Your task to perform on an android device: Show me the alarms in the clock app Image 0: 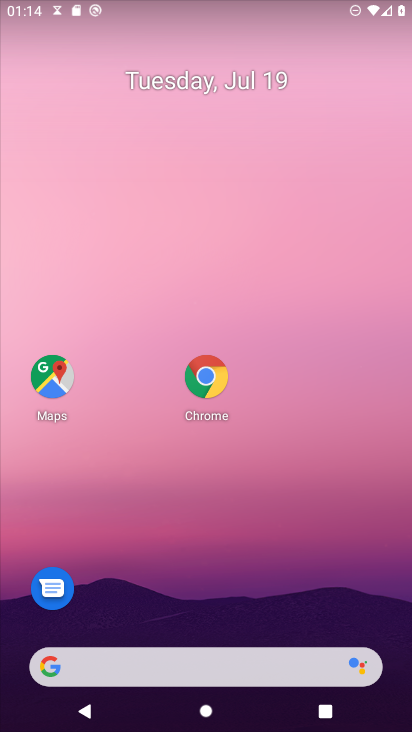
Step 0: press home button
Your task to perform on an android device: Show me the alarms in the clock app Image 1: 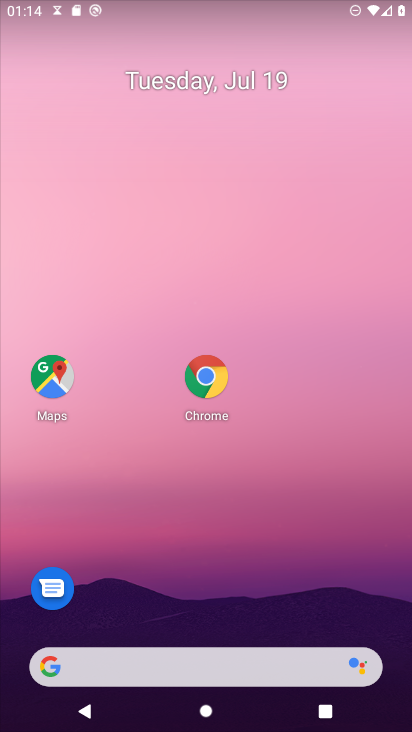
Step 1: drag from (314, 539) to (266, 0)
Your task to perform on an android device: Show me the alarms in the clock app Image 2: 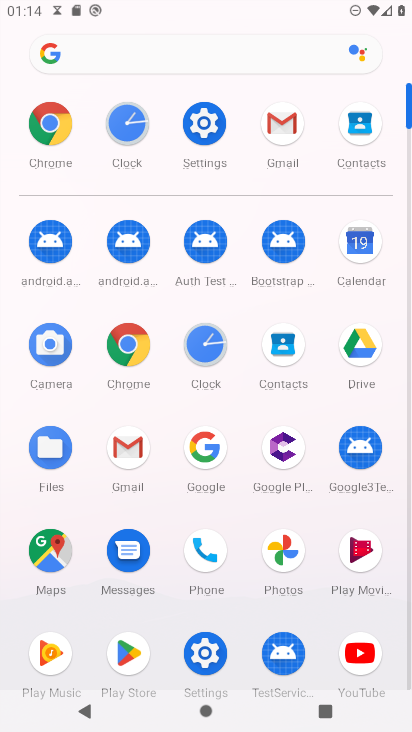
Step 2: click (119, 115)
Your task to perform on an android device: Show me the alarms in the clock app Image 3: 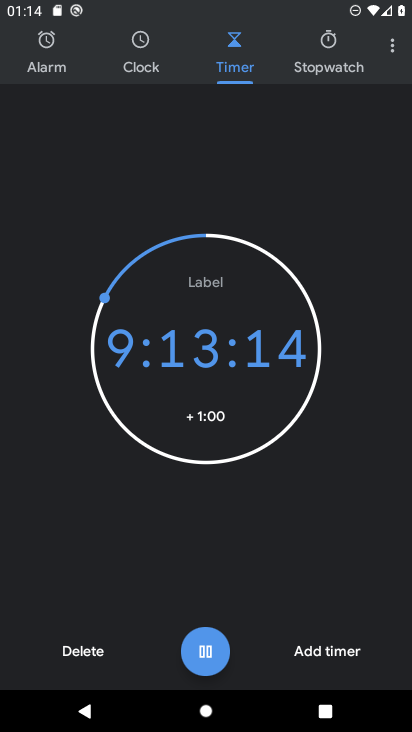
Step 3: click (43, 47)
Your task to perform on an android device: Show me the alarms in the clock app Image 4: 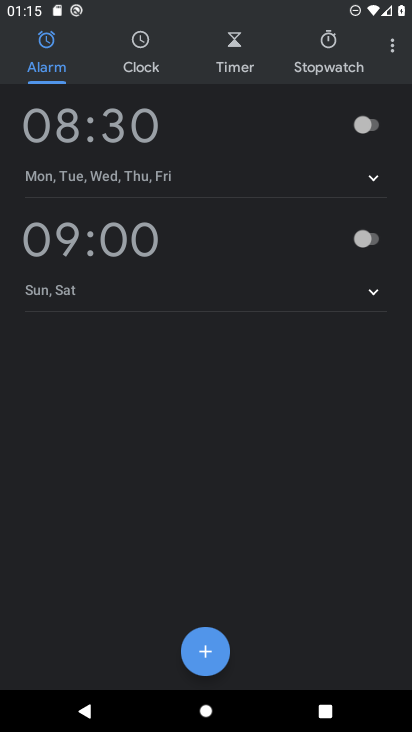
Step 4: task complete